Your task to perform on an android device: add a contact Image 0: 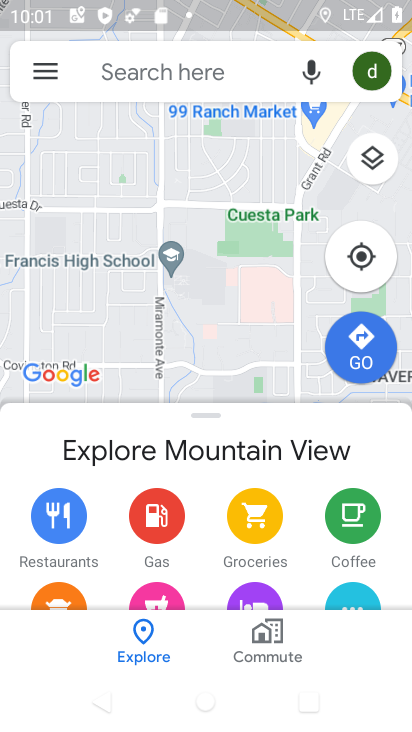
Step 0: press home button
Your task to perform on an android device: add a contact Image 1: 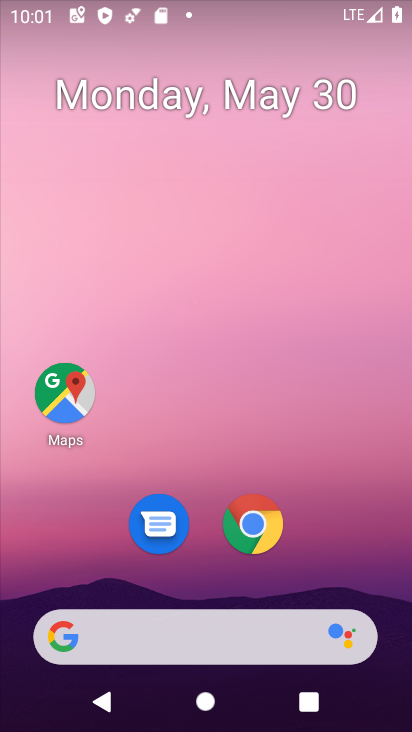
Step 1: drag from (323, 520) to (327, 6)
Your task to perform on an android device: add a contact Image 2: 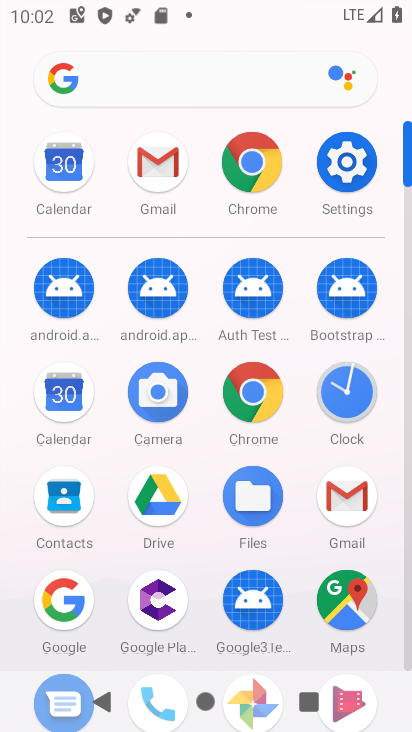
Step 2: click (72, 498)
Your task to perform on an android device: add a contact Image 3: 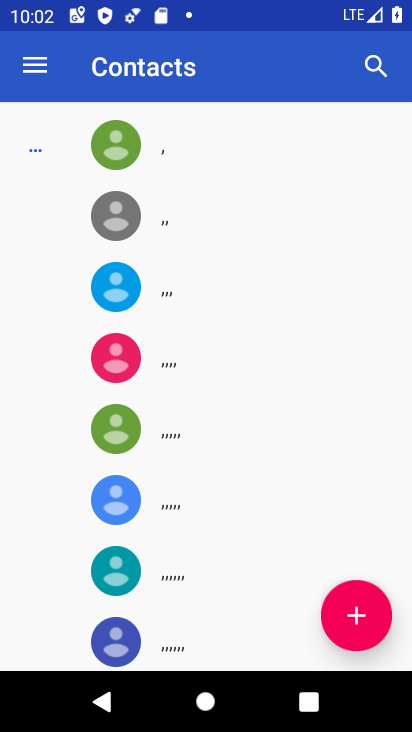
Step 3: click (358, 616)
Your task to perform on an android device: add a contact Image 4: 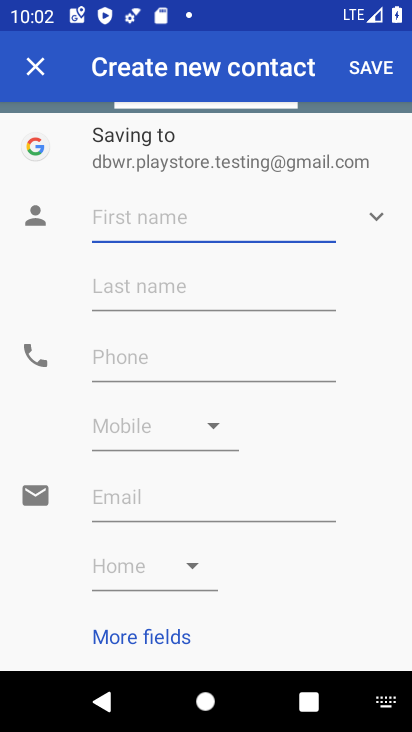
Step 4: type "Dayanand Saraswati"
Your task to perform on an android device: add a contact Image 5: 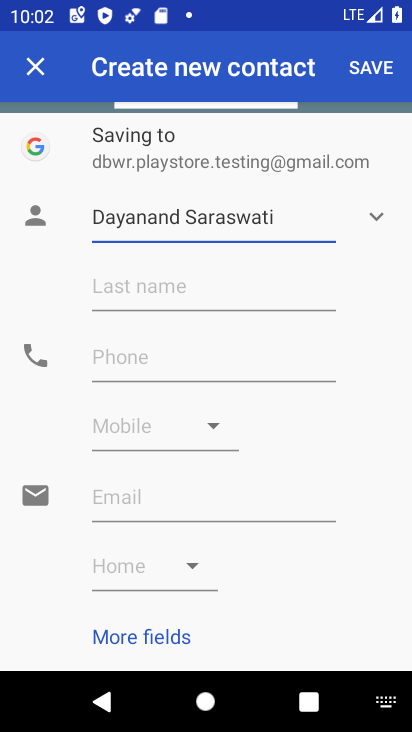
Step 5: click (215, 373)
Your task to perform on an android device: add a contact Image 6: 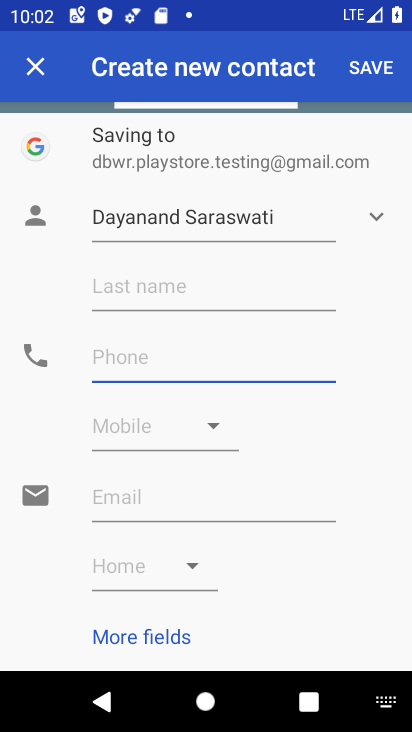
Step 6: type "01222445566"
Your task to perform on an android device: add a contact Image 7: 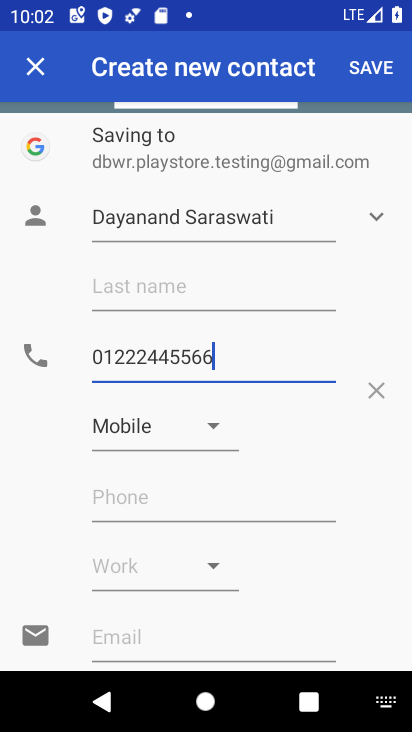
Step 7: click (377, 71)
Your task to perform on an android device: add a contact Image 8: 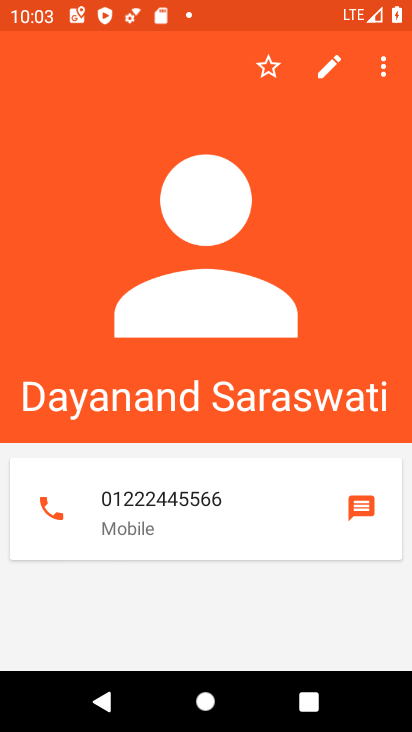
Step 8: task complete